Your task to perform on an android device: Go to Wikipedia Image 0: 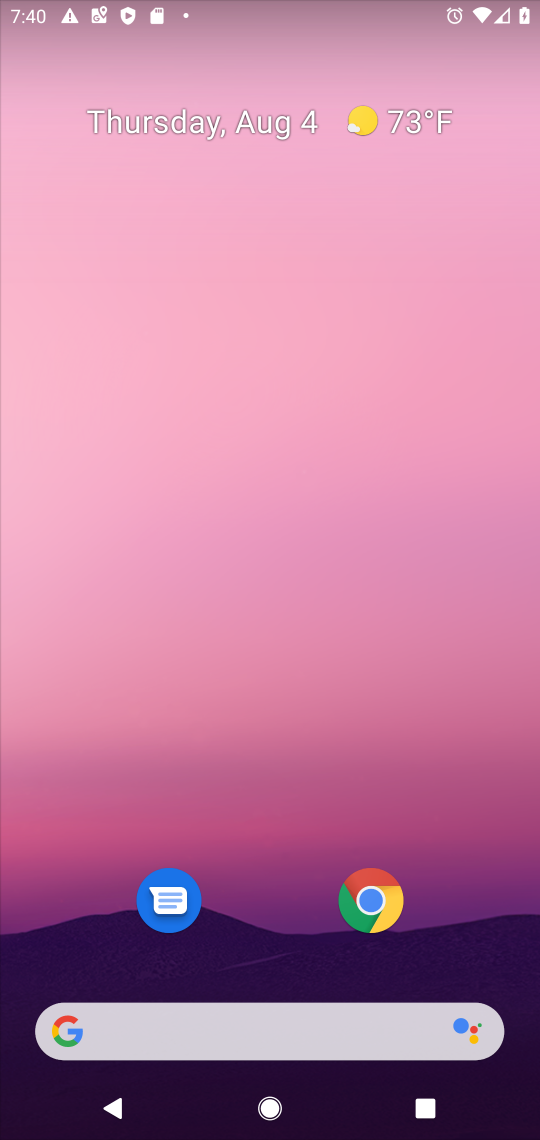
Step 0: click (375, 902)
Your task to perform on an android device: Go to Wikipedia Image 1: 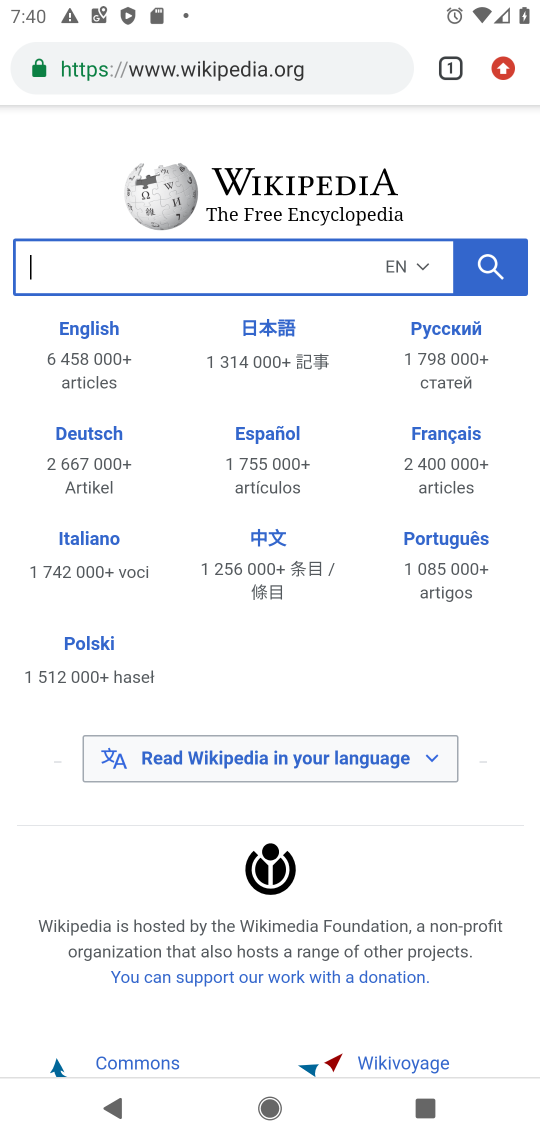
Step 1: task complete